Your task to perform on an android device: visit the assistant section in the google photos Image 0: 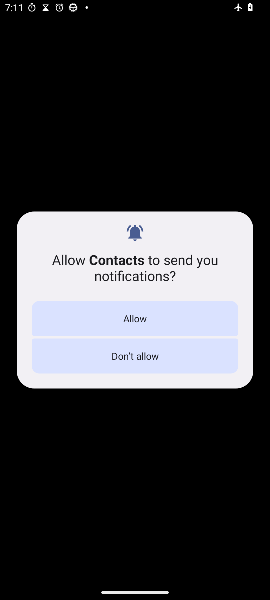
Step 0: press home button
Your task to perform on an android device: visit the assistant section in the google photos Image 1: 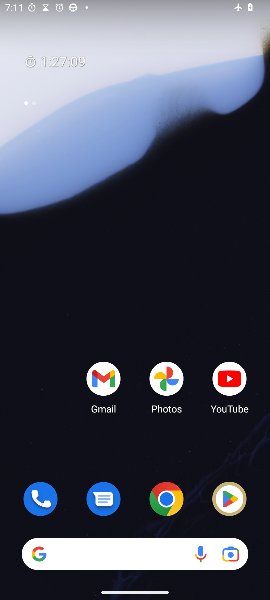
Step 1: drag from (121, 529) to (145, 189)
Your task to perform on an android device: visit the assistant section in the google photos Image 2: 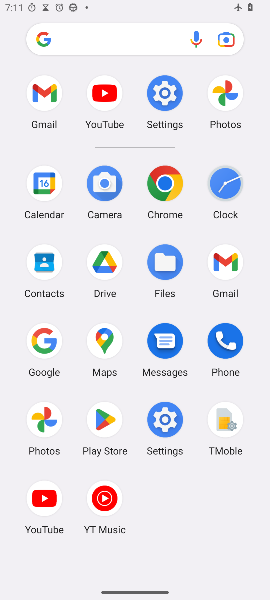
Step 2: click (27, 419)
Your task to perform on an android device: visit the assistant section in the google photos Image 3: 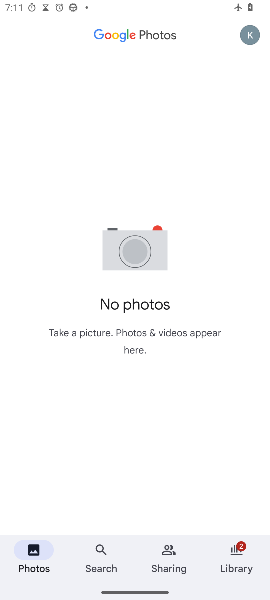
Step 3: click (248, 32)
Your task to perform on an android device: visit the assistant section in the google photos Image 4: 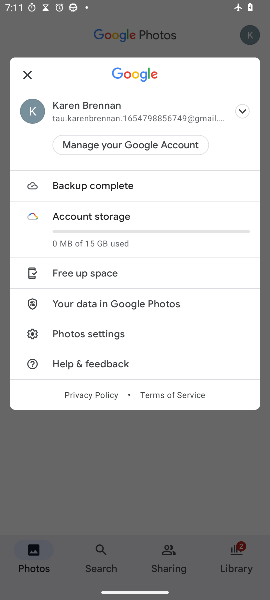
Step 4: task complete